Your task to perform on an android device: Search for jbl charge 4 on bestbuy.com, select the first entry, add it to the cart, then select checkout. Image 0: 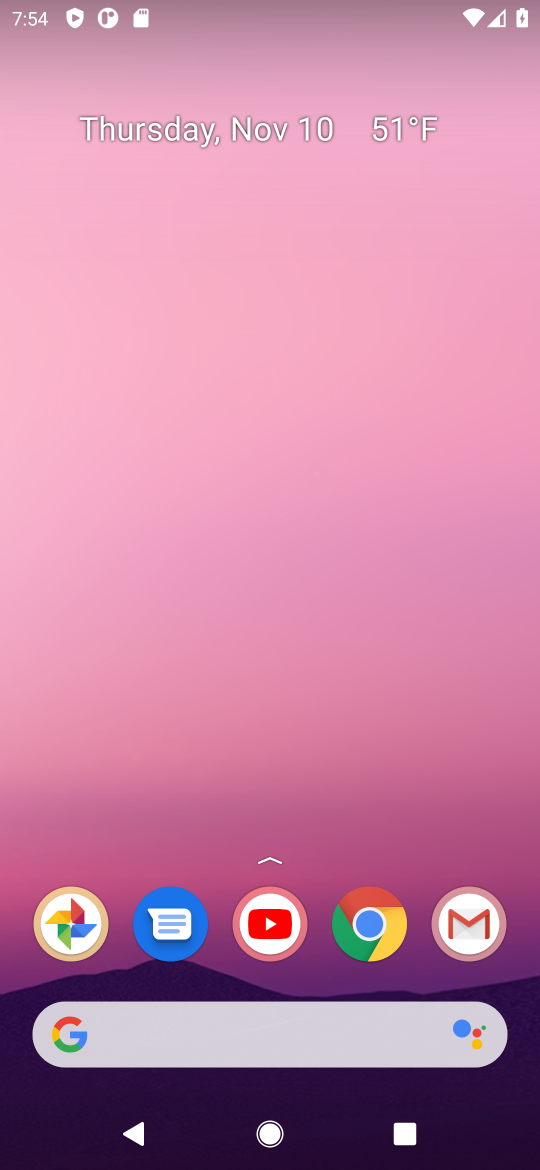
Step 0: click (374, 937)
Your task to perform on an android device: Search for jbl charge 4 on bestbuy.com, select the first entry, add it to the cart, then select checkout. Image 1: 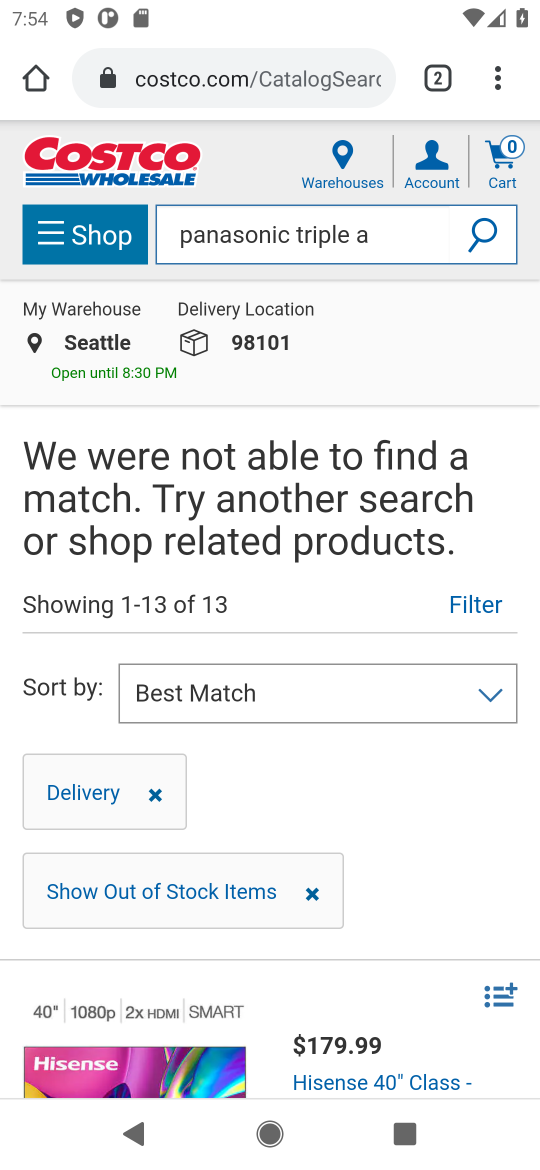
Step 1: click (226, 83)
Your task to perform on an android device: Search for jbl charge 4 on bestbuy.com, select the first entry, add it to the cart, then select checkout. Image 2: 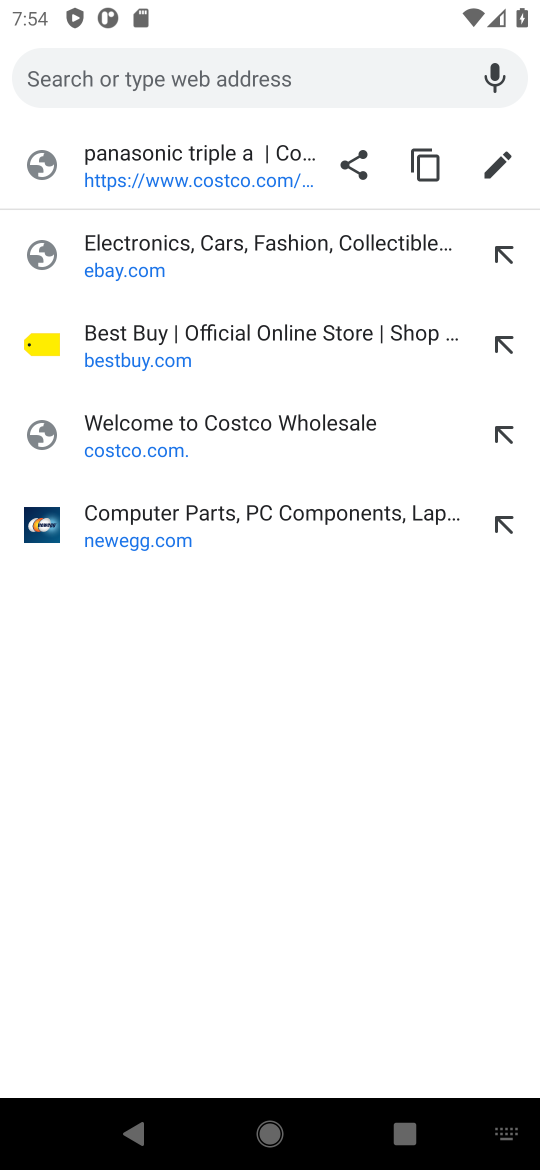
Step 2: click (96, 342)
Your task to perform on an android device: Search for jbl charge 4 on bestbuy.com, select the first entry, add it to the cart, then select checkout. Image 3: 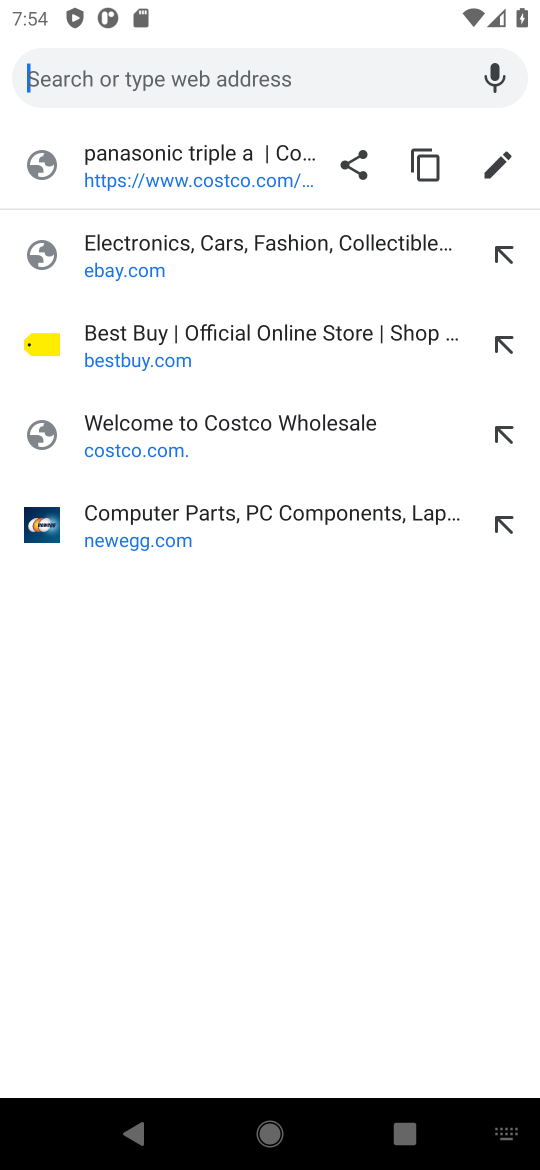
Step 3: click (104, 341)
Your task to perform on an android device: Search for jbl charge 4 on bestbuy.com, select the first entry, add it to the cart, then select checkout. Image 4: 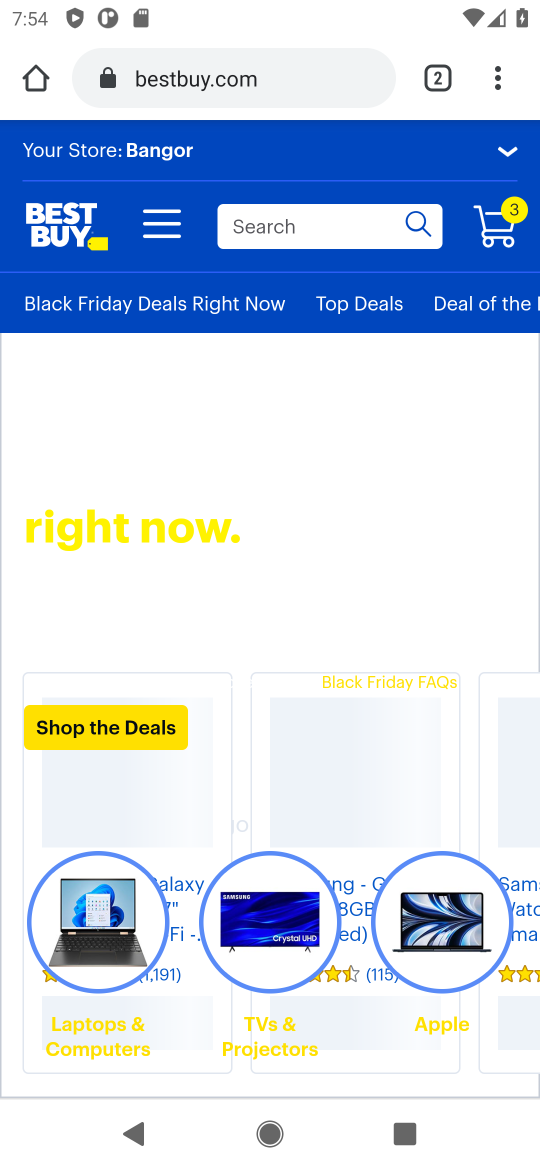
Step 4: click (318, 226)
Your task to perform on an android device: Search for jbl charge 4 on bestbuy.com, select the first entry, add it to the cart, then select checkout. Image 5: 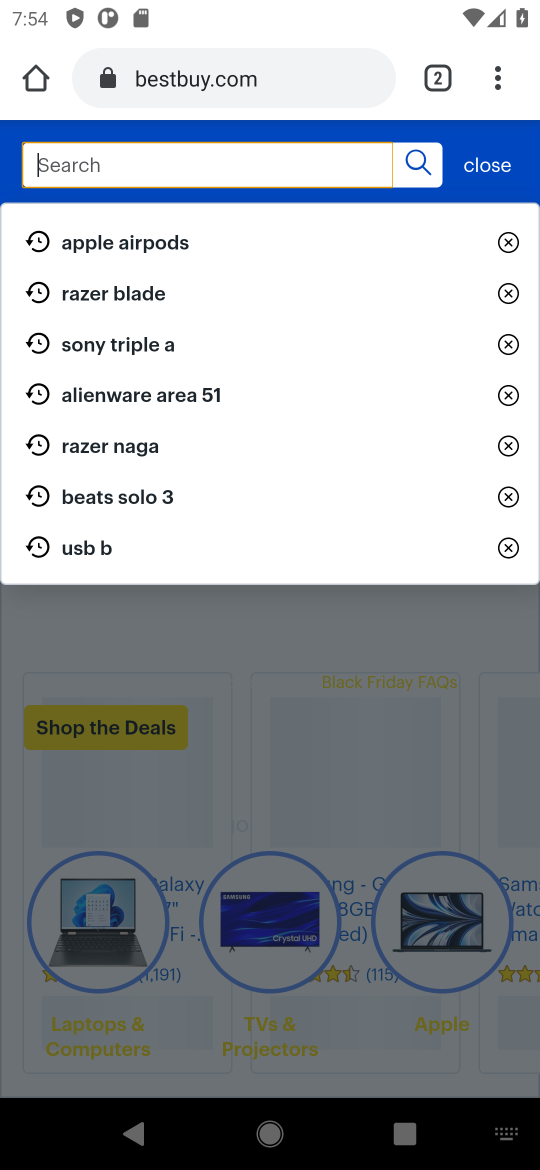
Step 5: type "jbl charge 4"
Your task to perform on an android device: Search for jbl charge 4 on bestbuy.com, select the first entry, add it to the cart, then select checkout. Image 6: 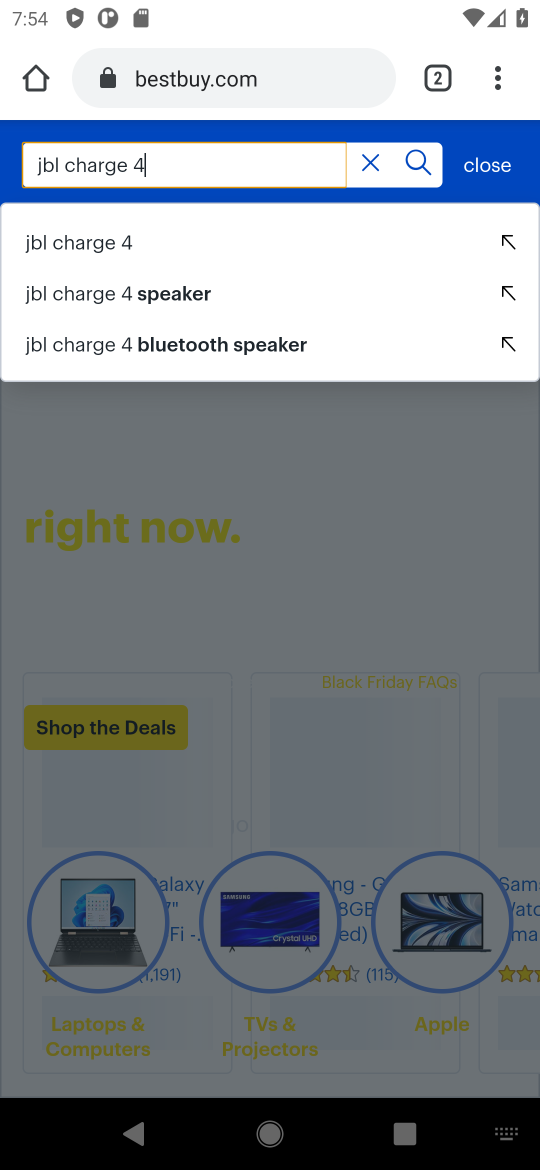
Step 6: click (88, 253)
Your task to perform on an android device: Search for jbl charge 4 on bestbuy.com, select the first entry, add it to the cart, then select checkout. Image 7: 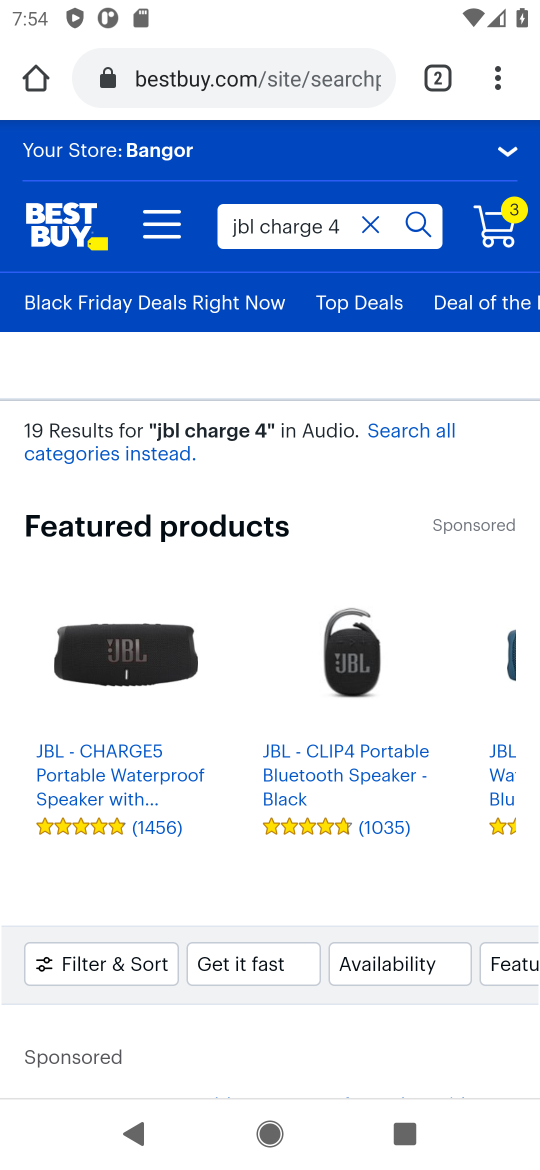
Step 7: task complete